Your task to perform on an android device: Open settings Image 0: 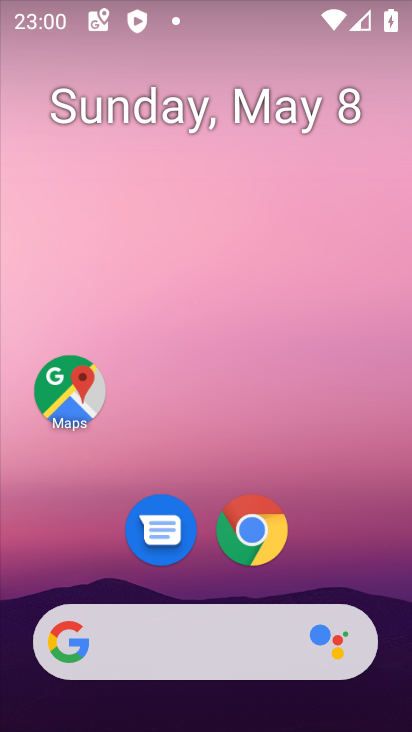
Step 0: drag from (373, 551) to (407, 132)
Your task to perform on an android device: Open settings Image 1: 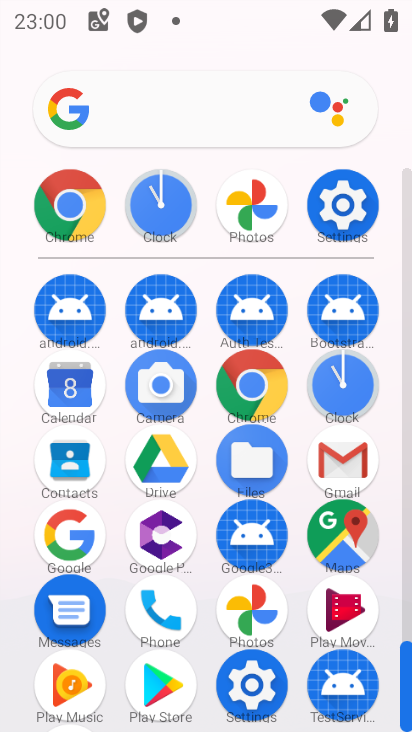
Step 1: click (353, 212)
Your task to perform on an android device: Open settings Image 2: 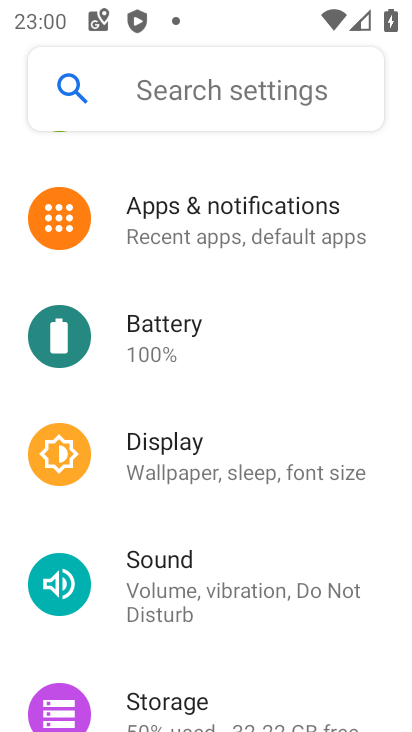
Step 2: task complete